Your task to perform on an android device: check the backup settings in the google photos Image 0: 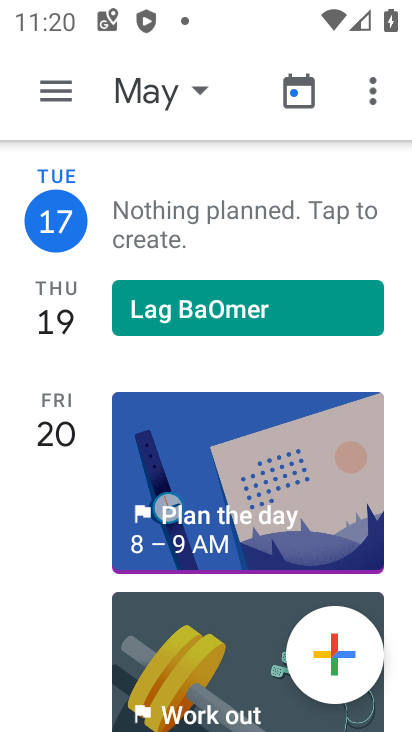
Step 0: press home button
Your task to perform on an android device: check the backup settings in the google photos Image 1: 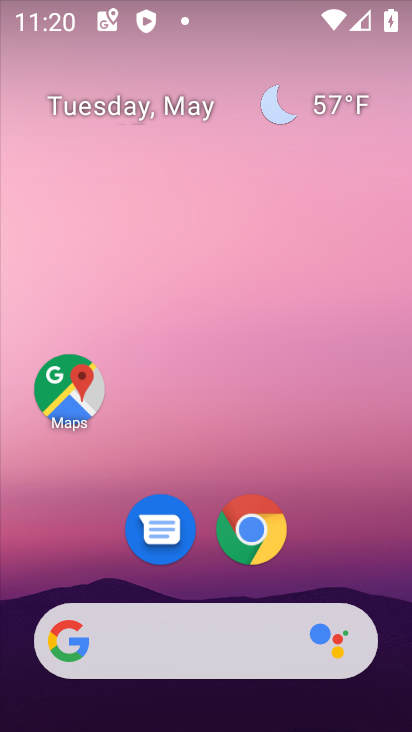
Step 1: drag from (200, 572) to (175, 1)
Your task to perform on an android device: check the backup settings in the google photos Image 2: 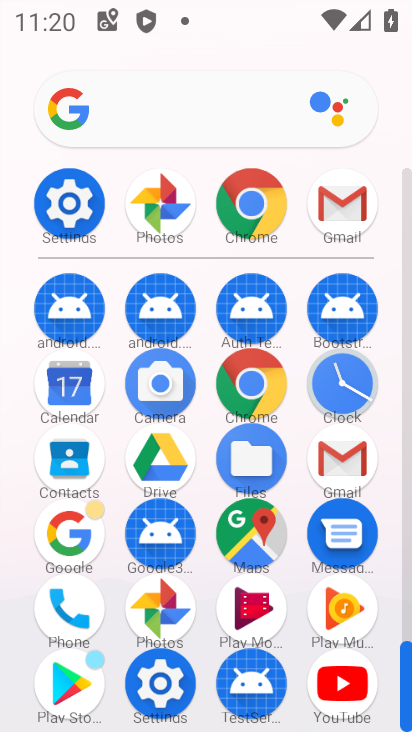
Step 2: click (187, 211)
Your task to perform on an android device: check the backup settings in the google photos Image 3: 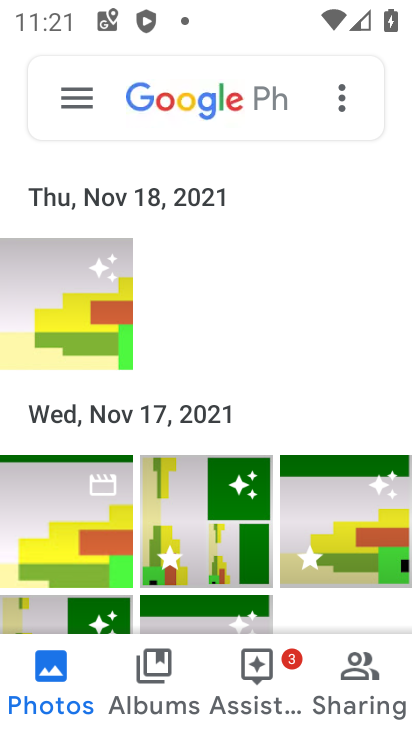
Step 3: click (76, 114)
Your task to perform on an android device: check the backup settings in the google photos Image 4: 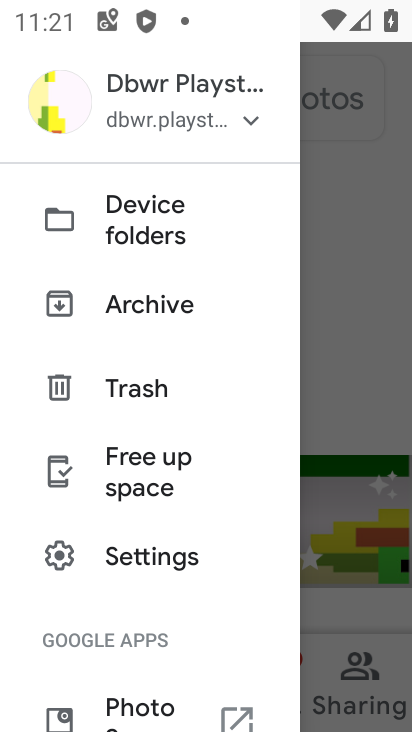
Step 4: click (171, 562)
Your task to perform on an android device: check the backup settings in the google photos Image 5: 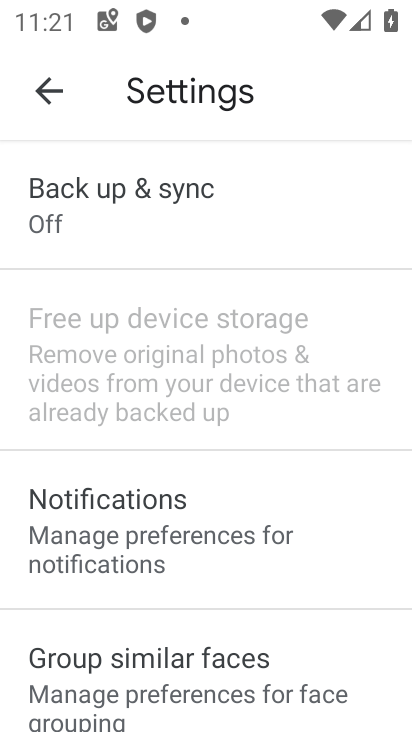
Step 5: click (203, 249)
Your task to perform on an android device: check the backup settings in the google photos Image 6: 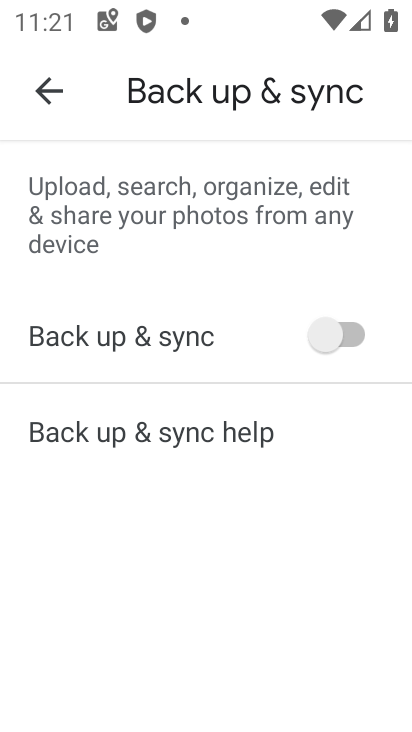
Step 6: task complete